Your task to perform on an android device: Add "usb-a to usb-b" to the cart on target.com, then select checkout. Image 0: 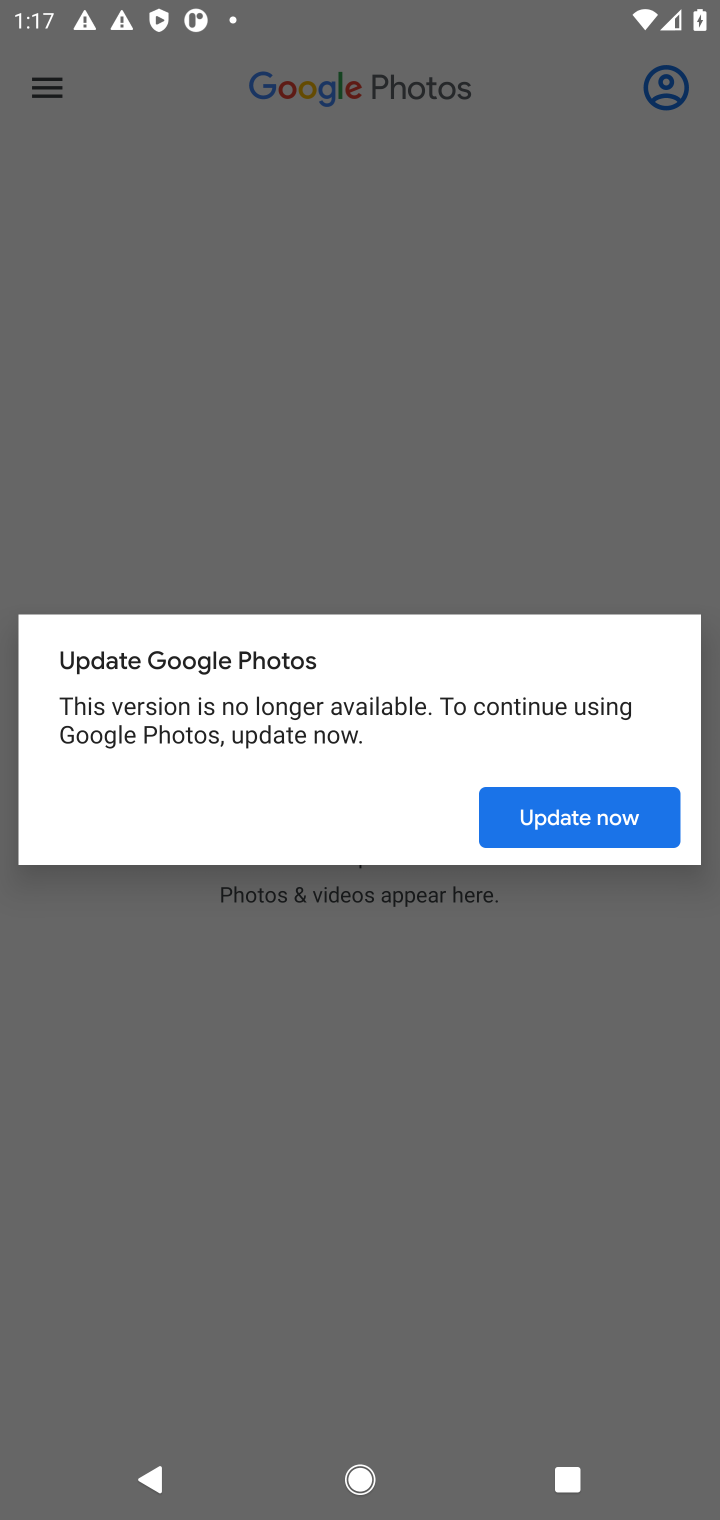
Step 0: press home button
Your task to perform on an android device: Add "usb-a to usb-b" to the cart on target.com, then select checkout. Image 1: 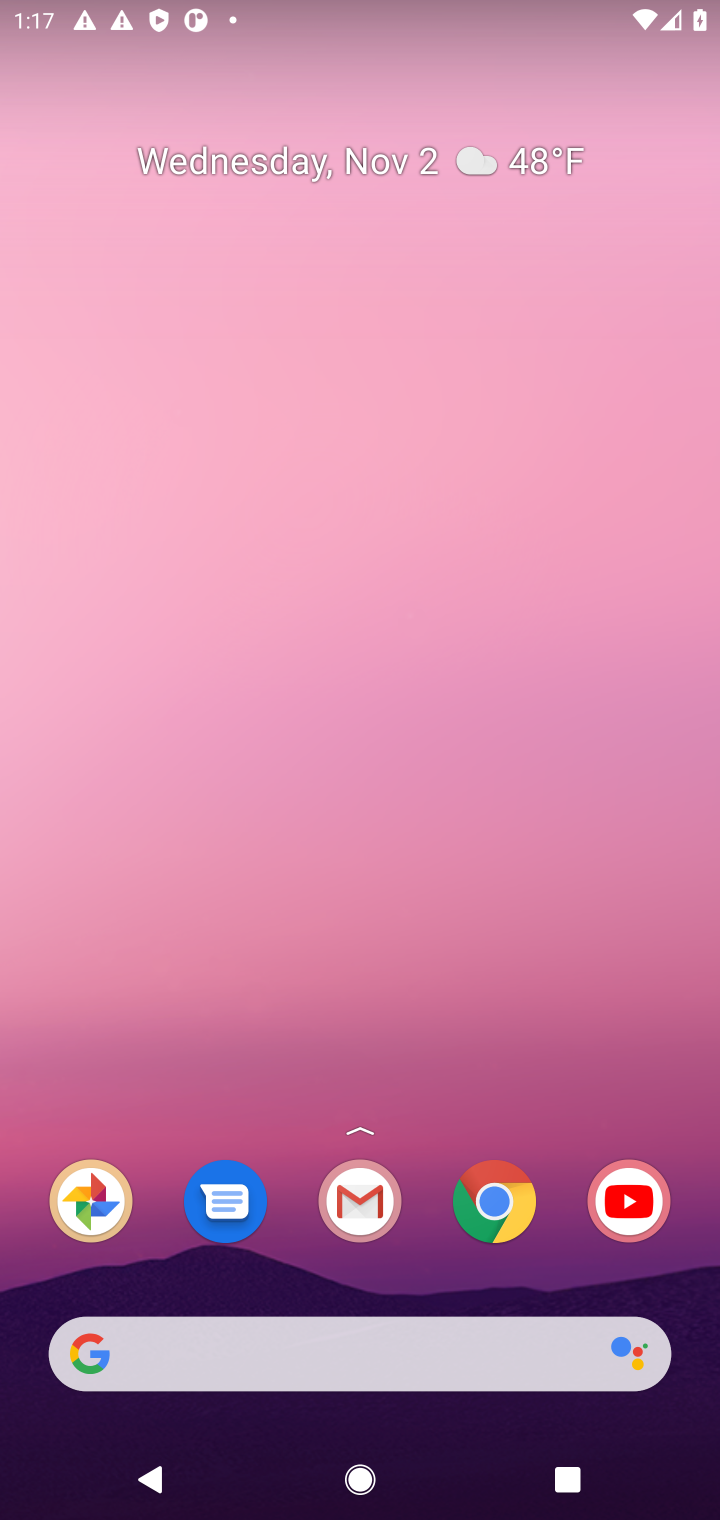
Step 1: click (477, 1210)
Your task to perform on an android device: Add "usb-a to usb-b" to the cart on target.com, then select checkout. Image 2: 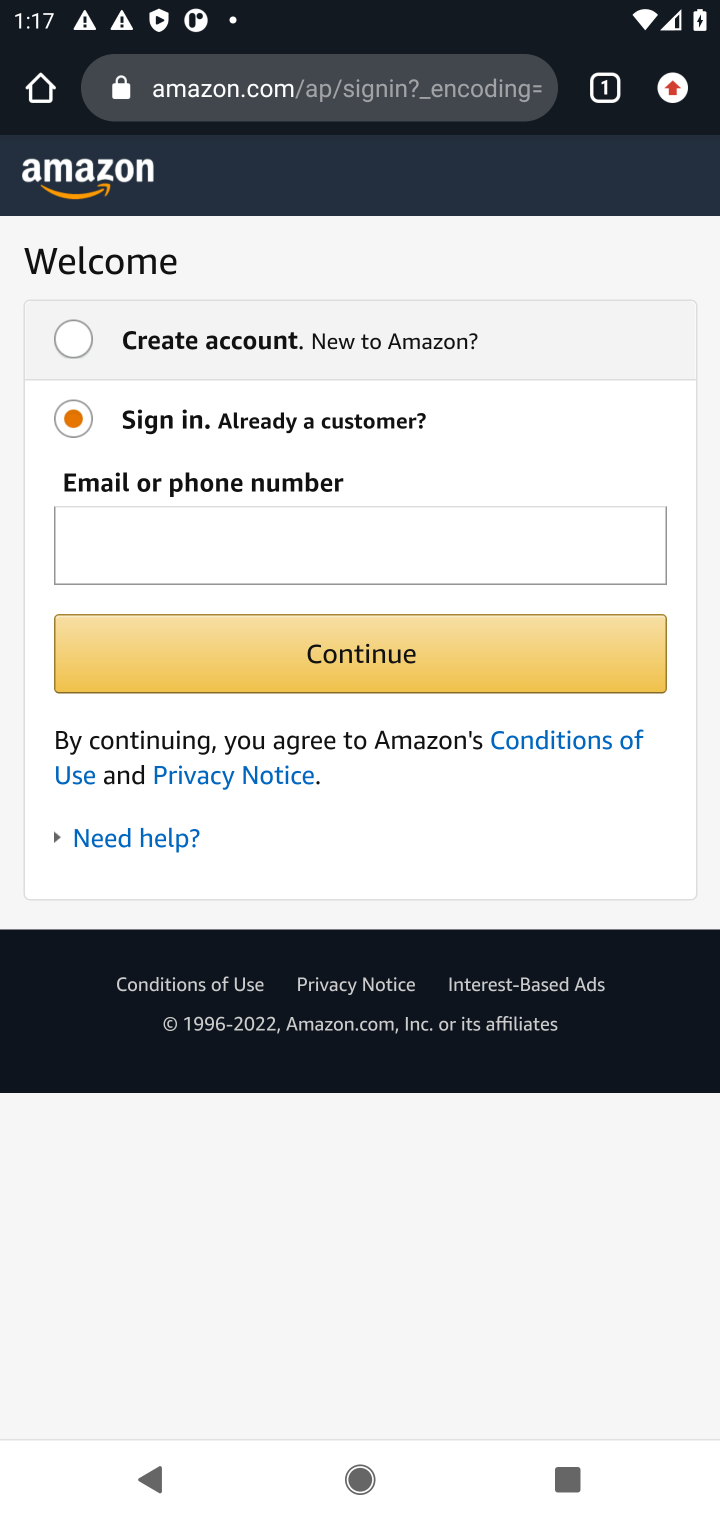
Step 2: click (345, 86)
Your task to perform on an android device: Add "usb-a to usb-b" to the cart on target.com, then select checkout. Image 3: 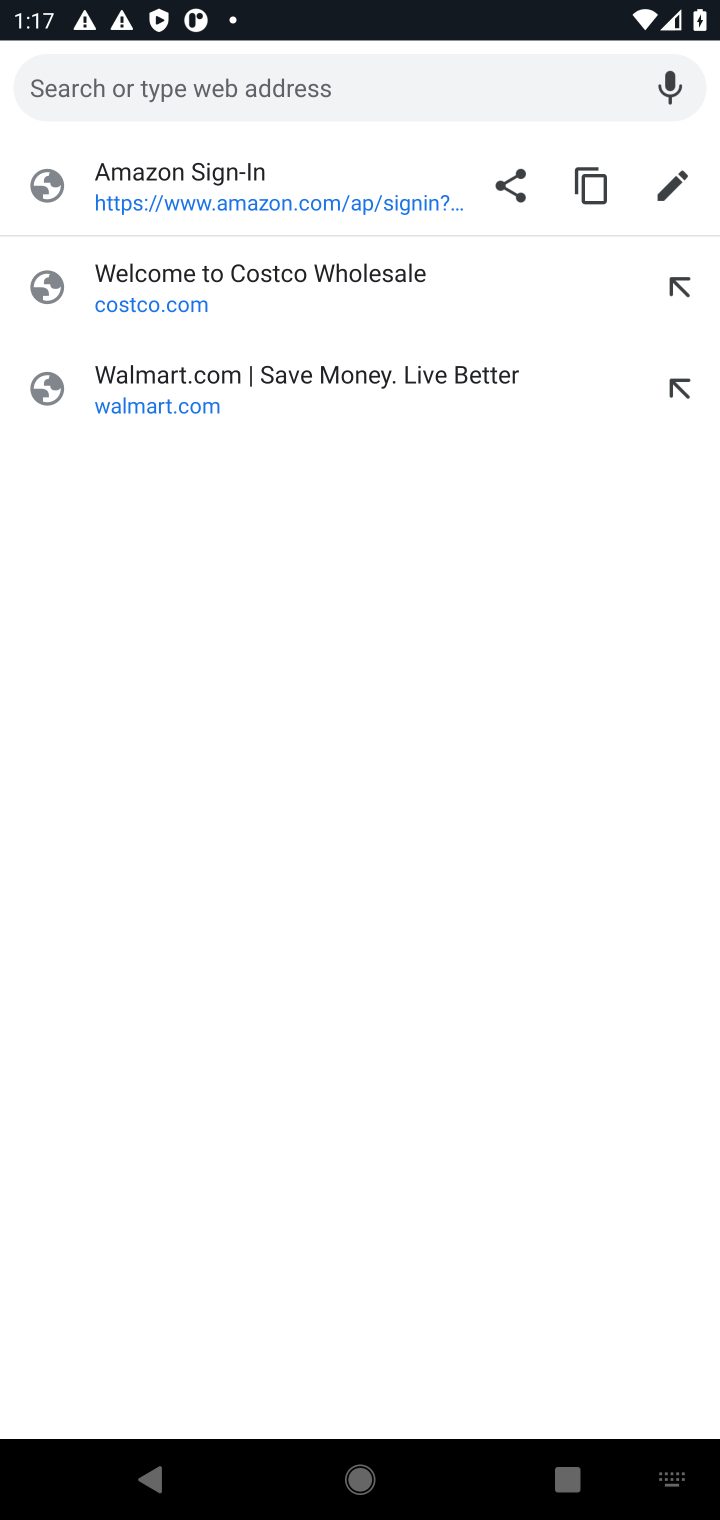
Step 3: type "usb-a to usb-b"
Your task to perform on an android device: Add "usb-a to usb-b" to the cart on target.com, then select checkout. Image 4: 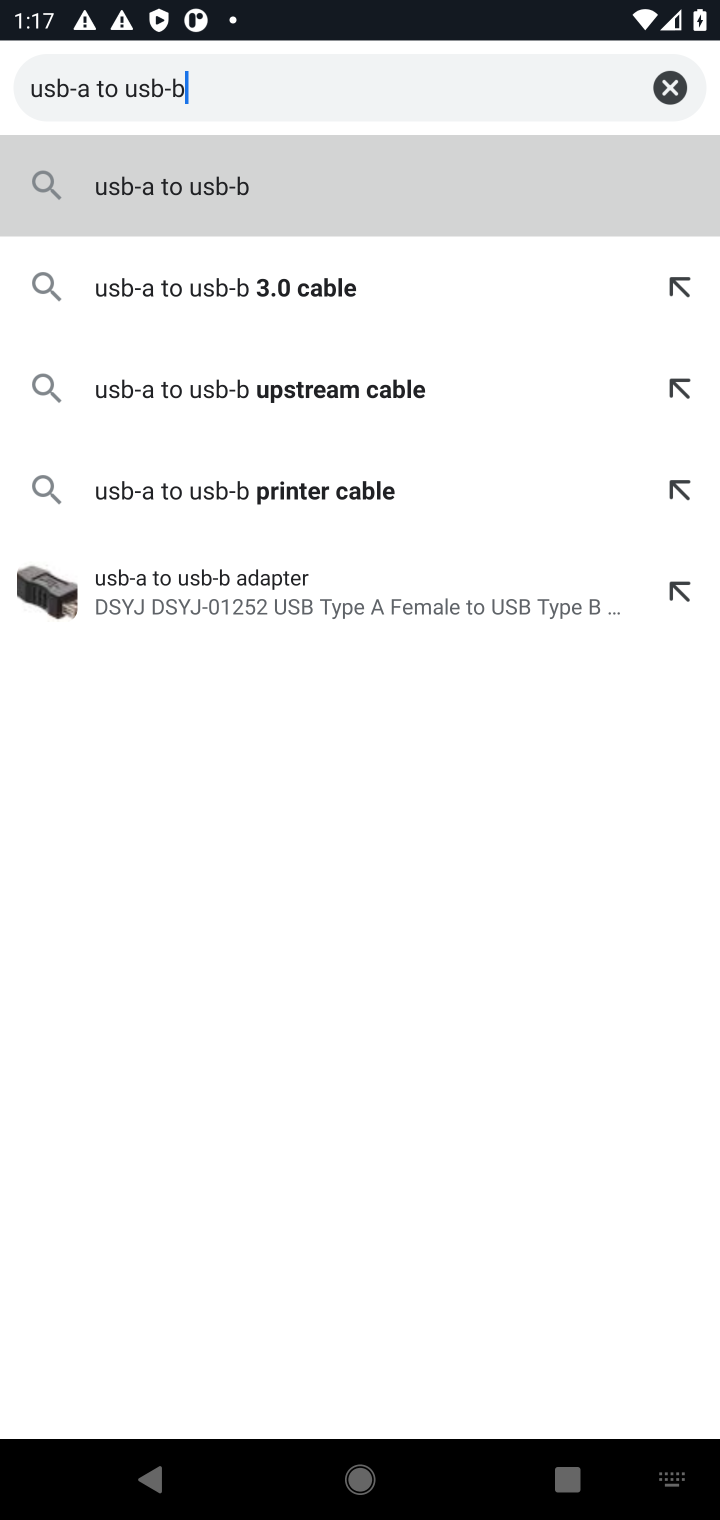
Step 4: press enter
Your task to perform on an android device: Add "usb-a to usb-b" to the cart on target.com, then select checkout. Image 5: 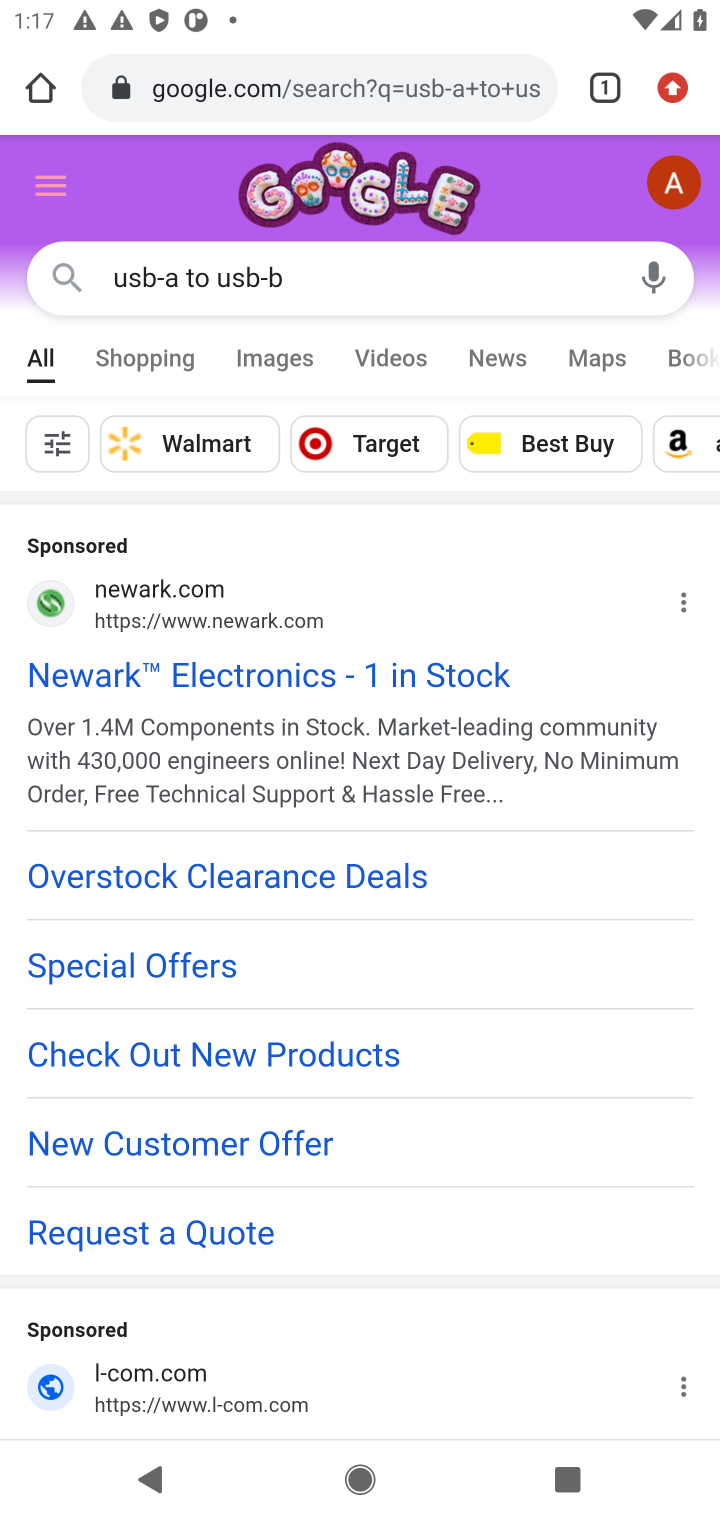
Step 5: drag from (510, 1162) to (451, 574)
Your task to perform on an android device: Add "usb-a to usb-b" to the cart on target.com, then select checkout. Image 6: 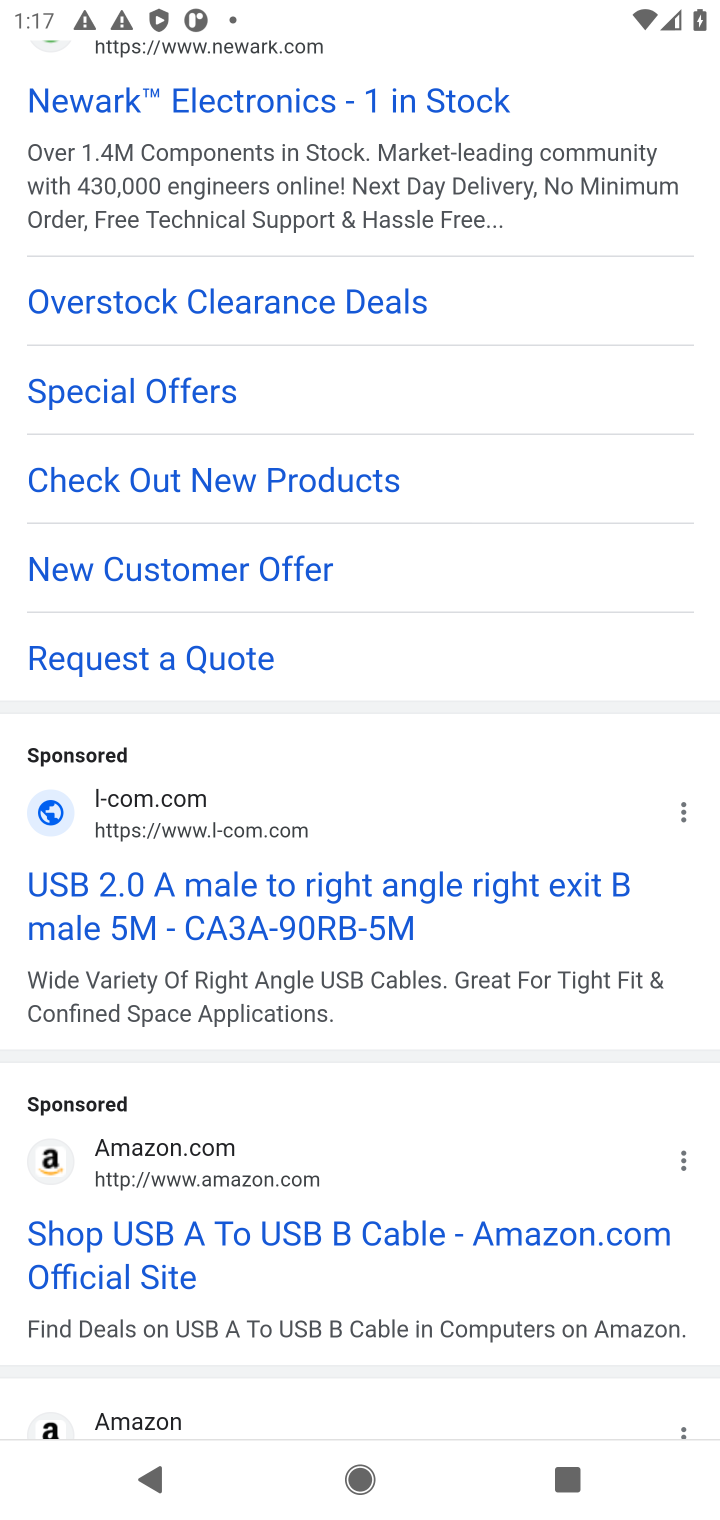
Step 6: drag from (492, 1110) to (435, 517)
Your task to perform on an android device: Add "usb-a to usb-b" to the cart on target.com, then select checkout. Image 7: 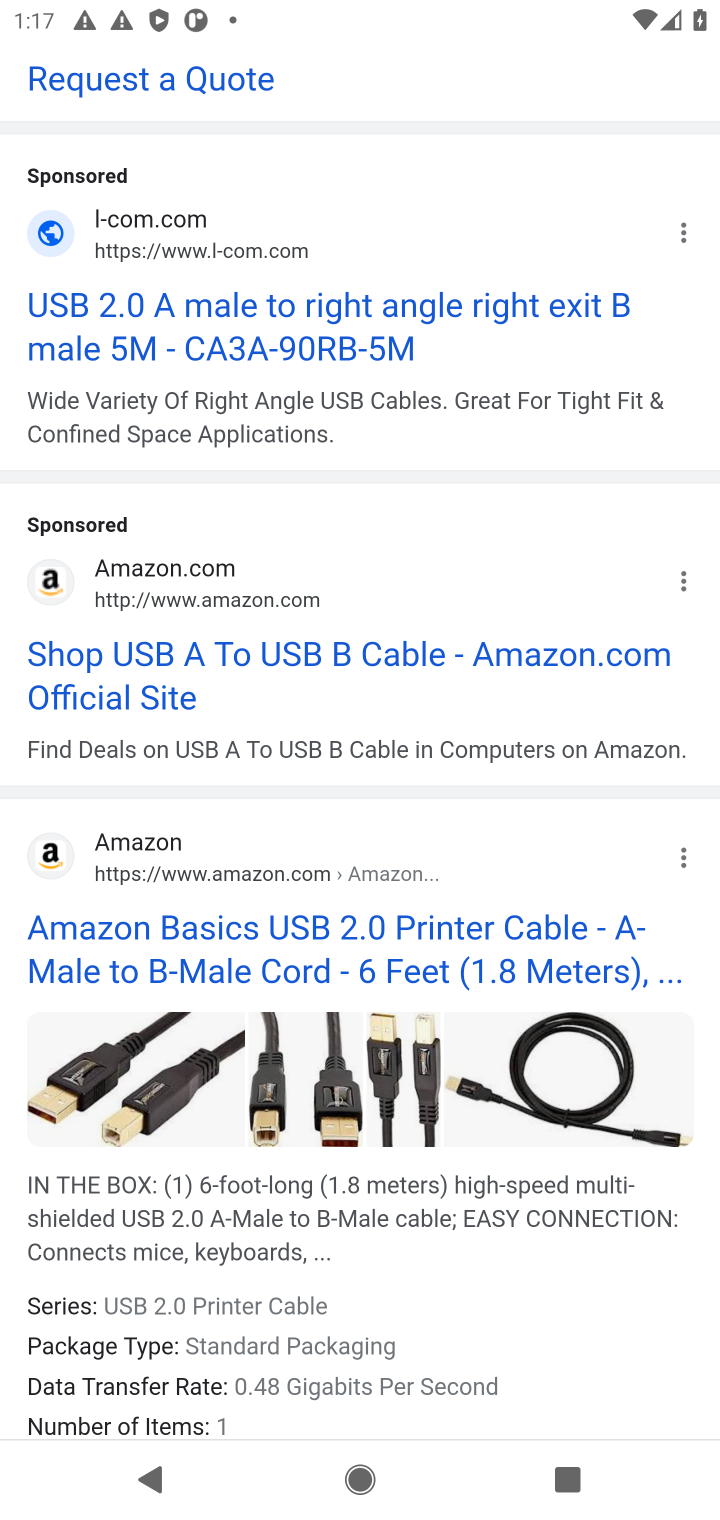
Step 7: drag from (452, 1032) to (440, 535)
Your task to perform on an android device: Add "usb-a to usb-b" to the cart on target.com, then select checkout. Image 8: 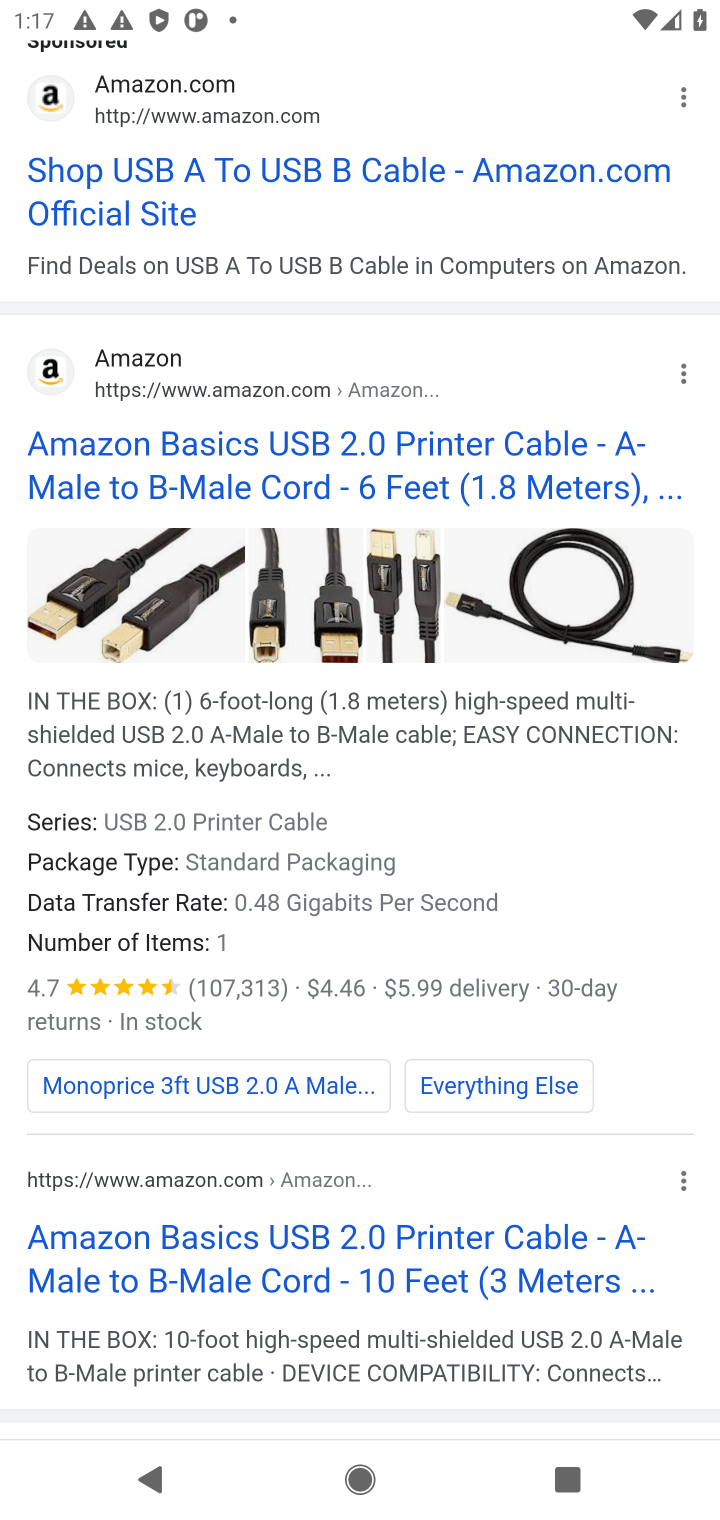
Step 8: drag from (509, 1161) to (511, 895)
Your task to perform on an android device: Add "usb-a to usb-b" to the cart on target.com, then select checkout. Image 9: 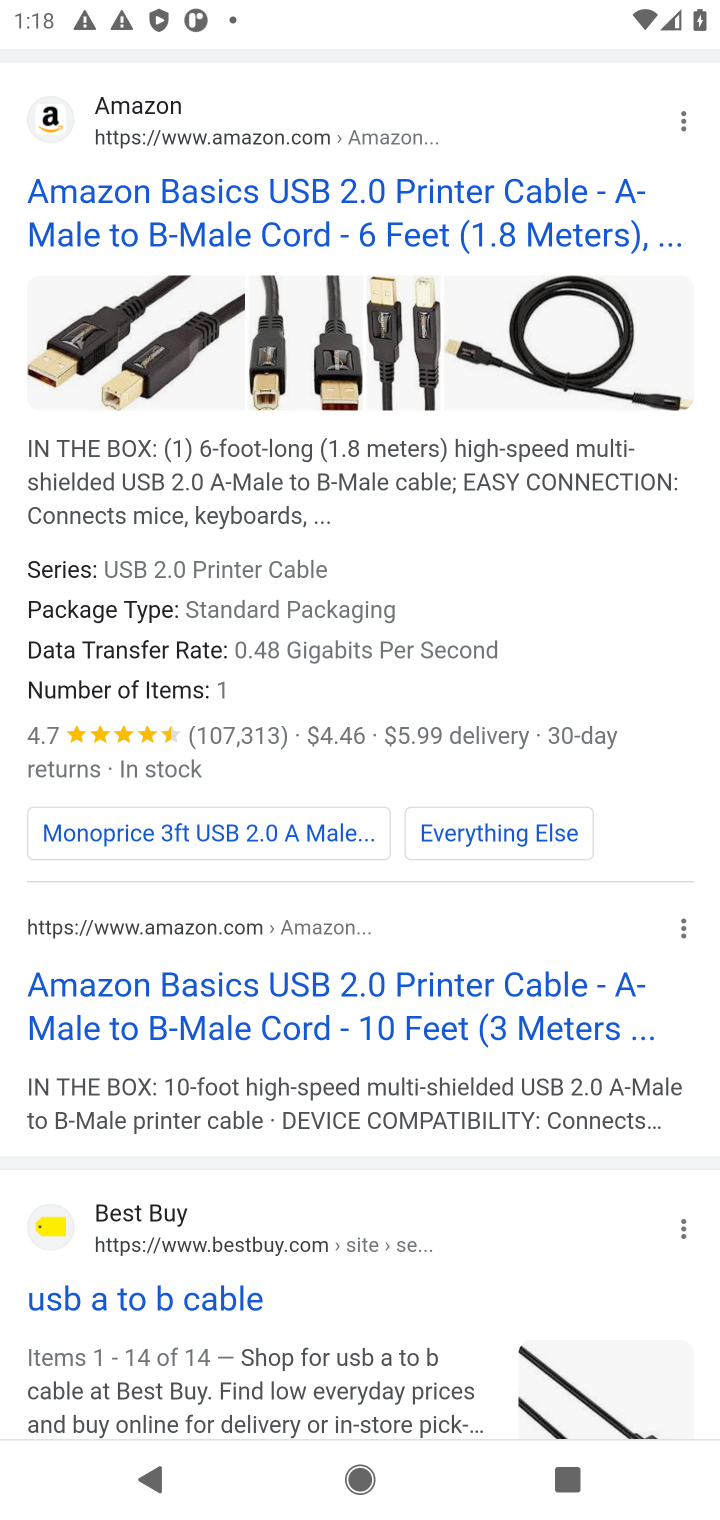
Step 9: drag from (494, 1129) to (473, 654)
Your task to perform on an android device: Add "usb-a to usb-b" to the cart on target.com, then select checkout. Image 10: 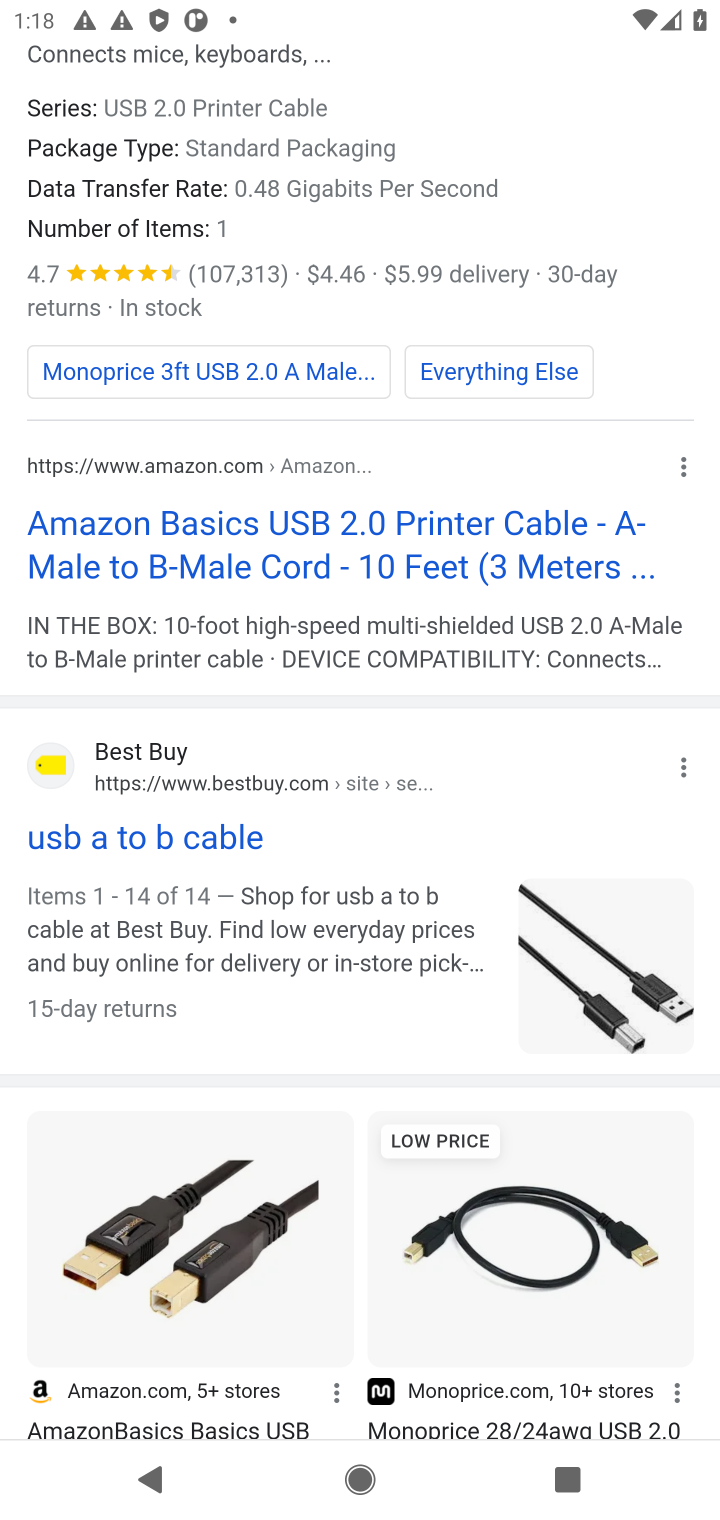
Step 10: drag from (506, 961) to (583, 615)
Your task to perform on an android device: Add "usb-a to usb-b" to the cart on target.com, then select checkout. Image 11: 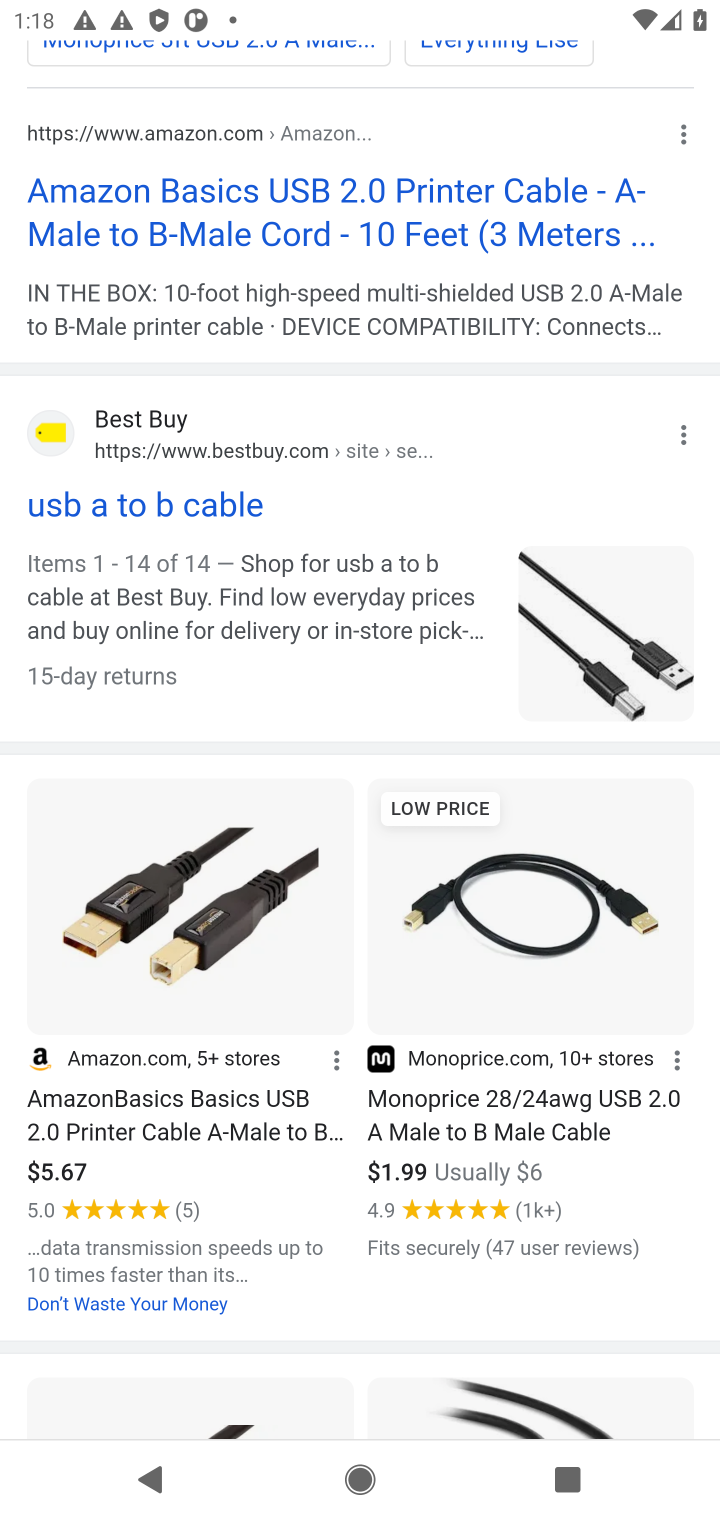
Step 11: drag from (467, 334) to (573, 1151)
Your task to perform on an android device: Add "usb-a to usb-b" to the cart on target.com, then select checkout. Image 12: 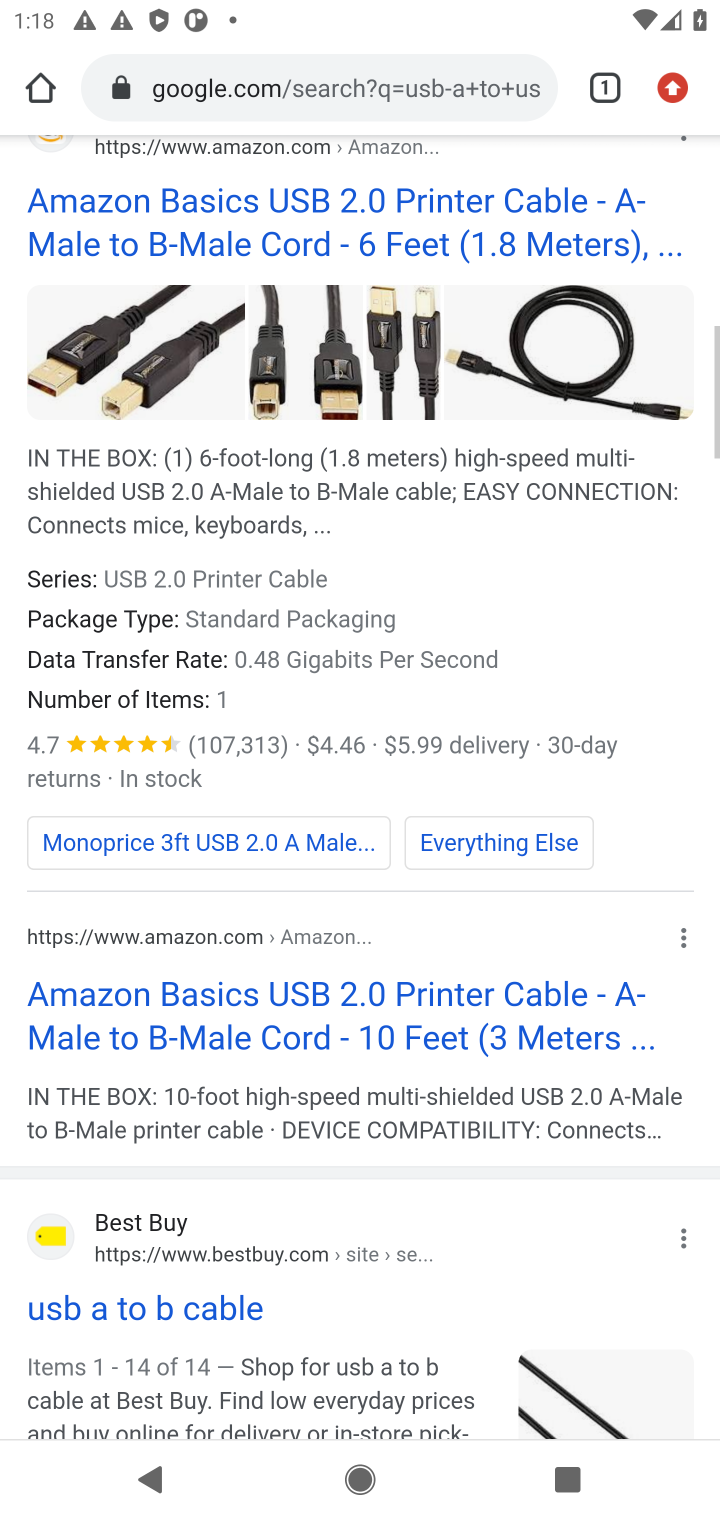
Step 12: click (416, 87)
Your task to perform on an android device: Add "usb-a to usb-b" to the cart on target.com, then select checkout. Image 13: 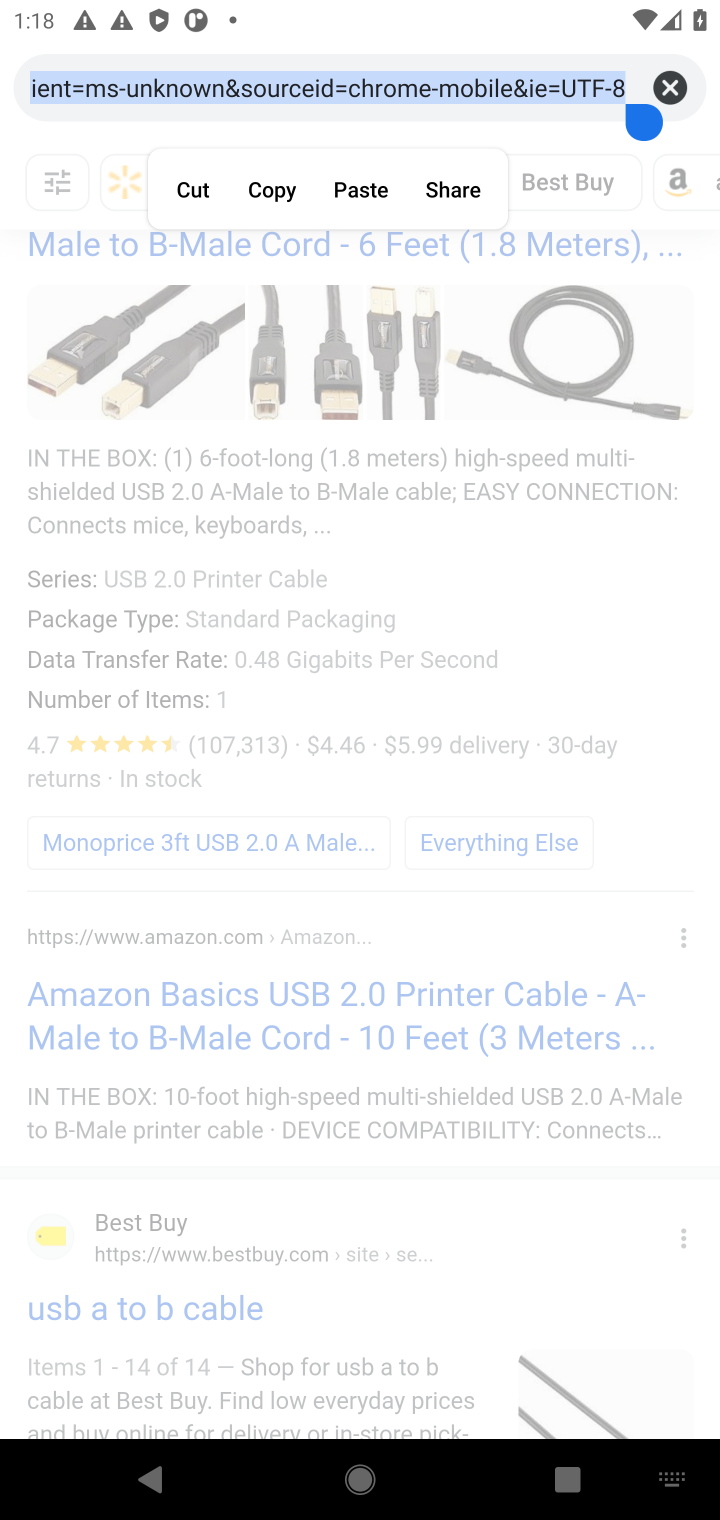
Step 13: click (676, 89)
Your task to perform on an android device: Add "usb-a to usb-b" to the cart on target.com, then select checkout. Image 14: 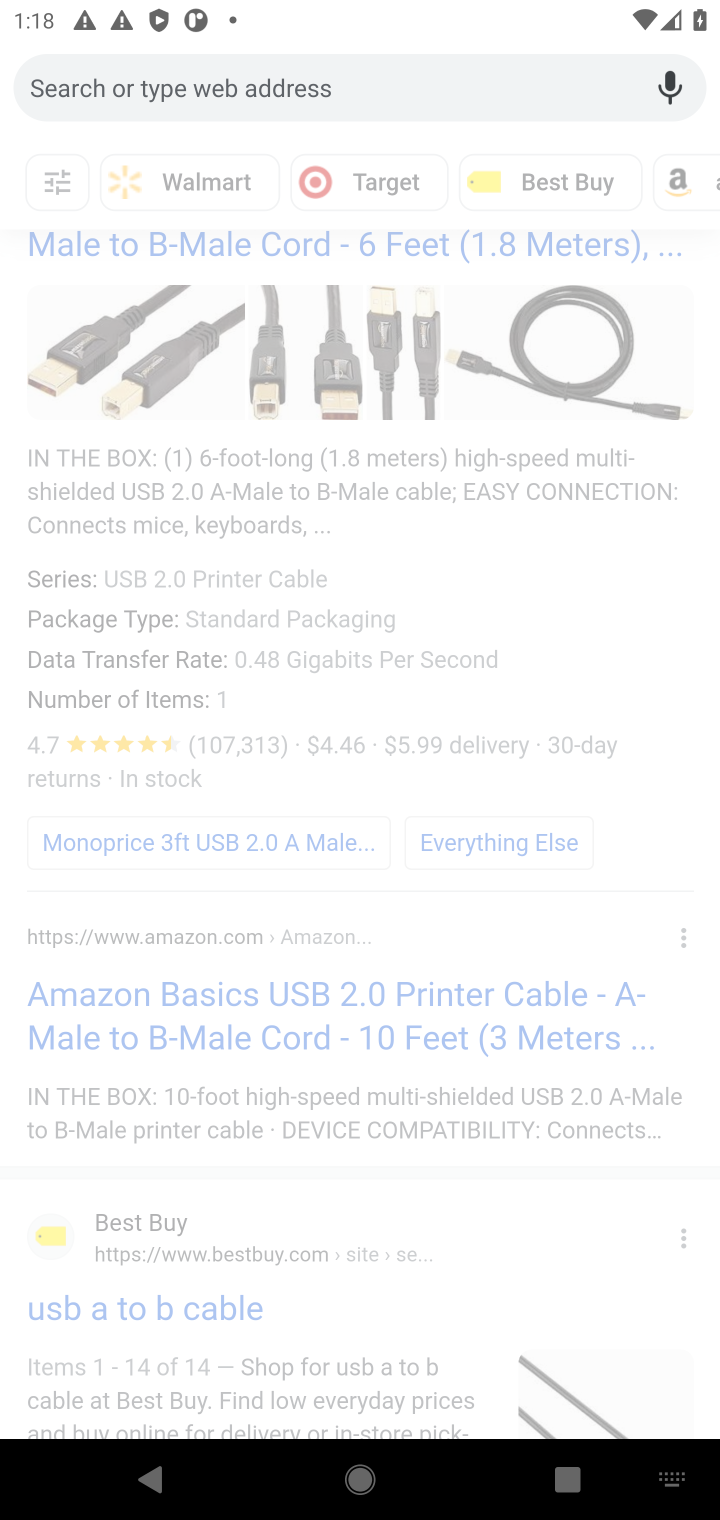
Step 14: type "target.com"
Your task to perform on an android device: Add "usb-a to usb-b" to the cart on target.com, then select checkout. Image 15: 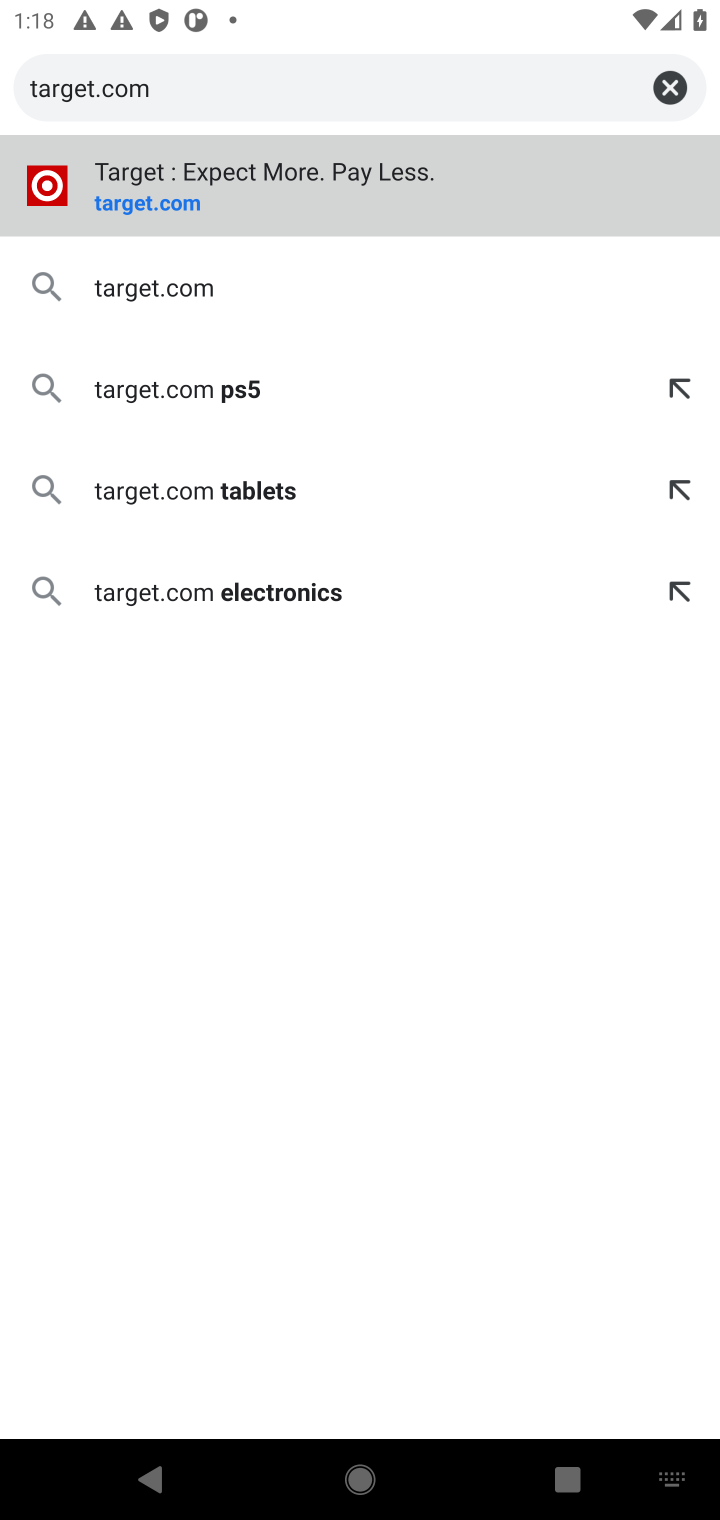
Step 15: press enter
Your task to perform on an android device: Add "usb-a to usb-b" to the cart on target.com, then select checkout. Image 16: 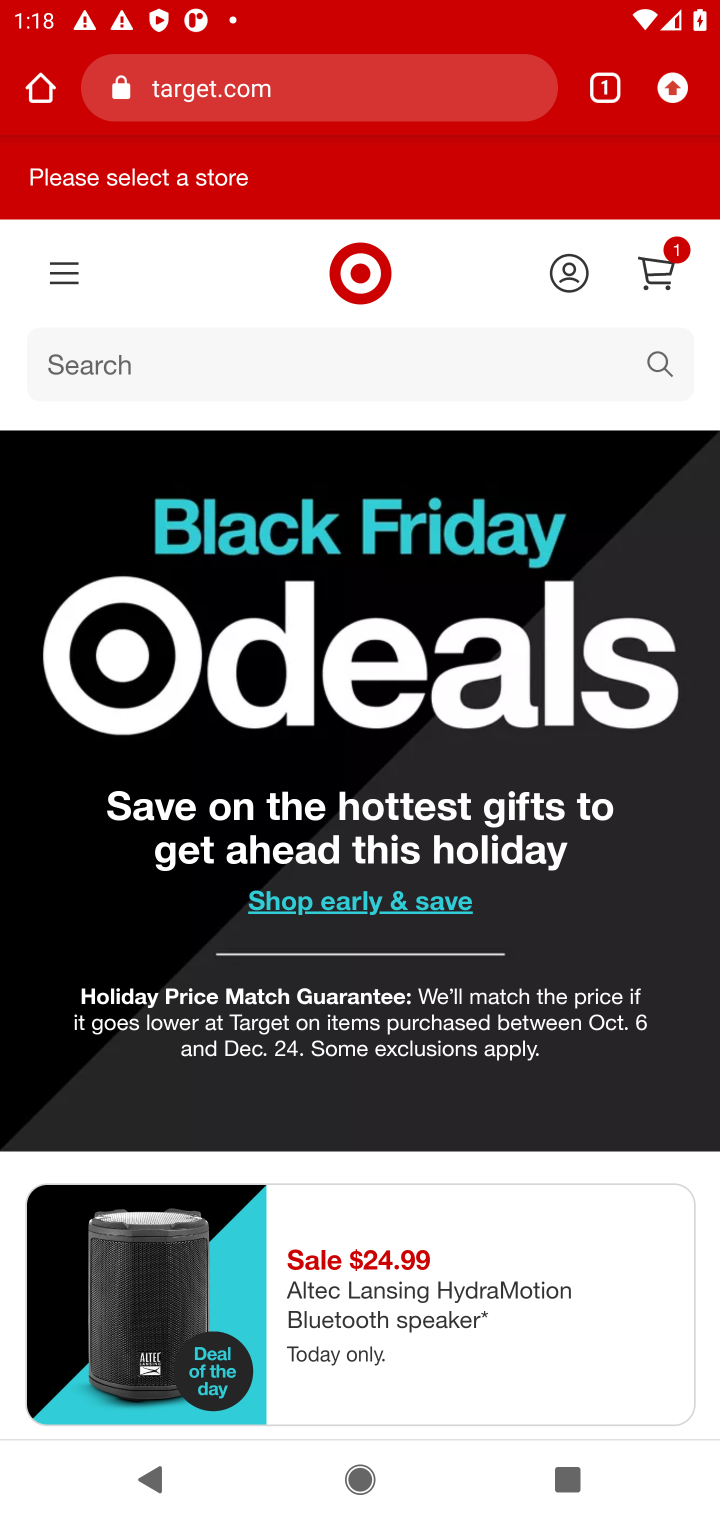
Step 16: click (665, 361)
Your task to perform on an android device: Add "usb-a to usb-b" to the cart on target.com, then select checkout. Image 17: 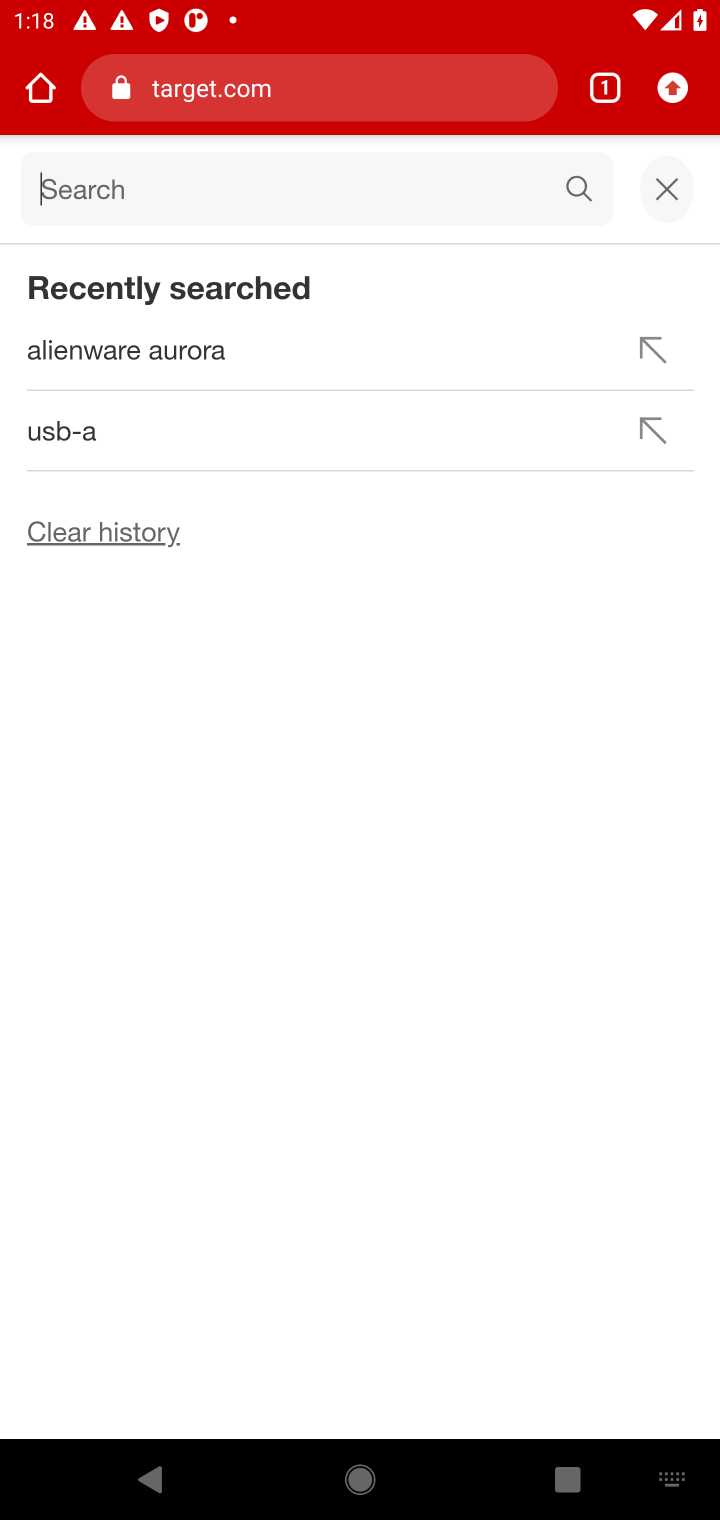
Step 17: type "usb-a to usb-b"
Your task to perform on an android device: Add "usb-a to usb-b" to the cart on target.com, then select checkout. Image 18: 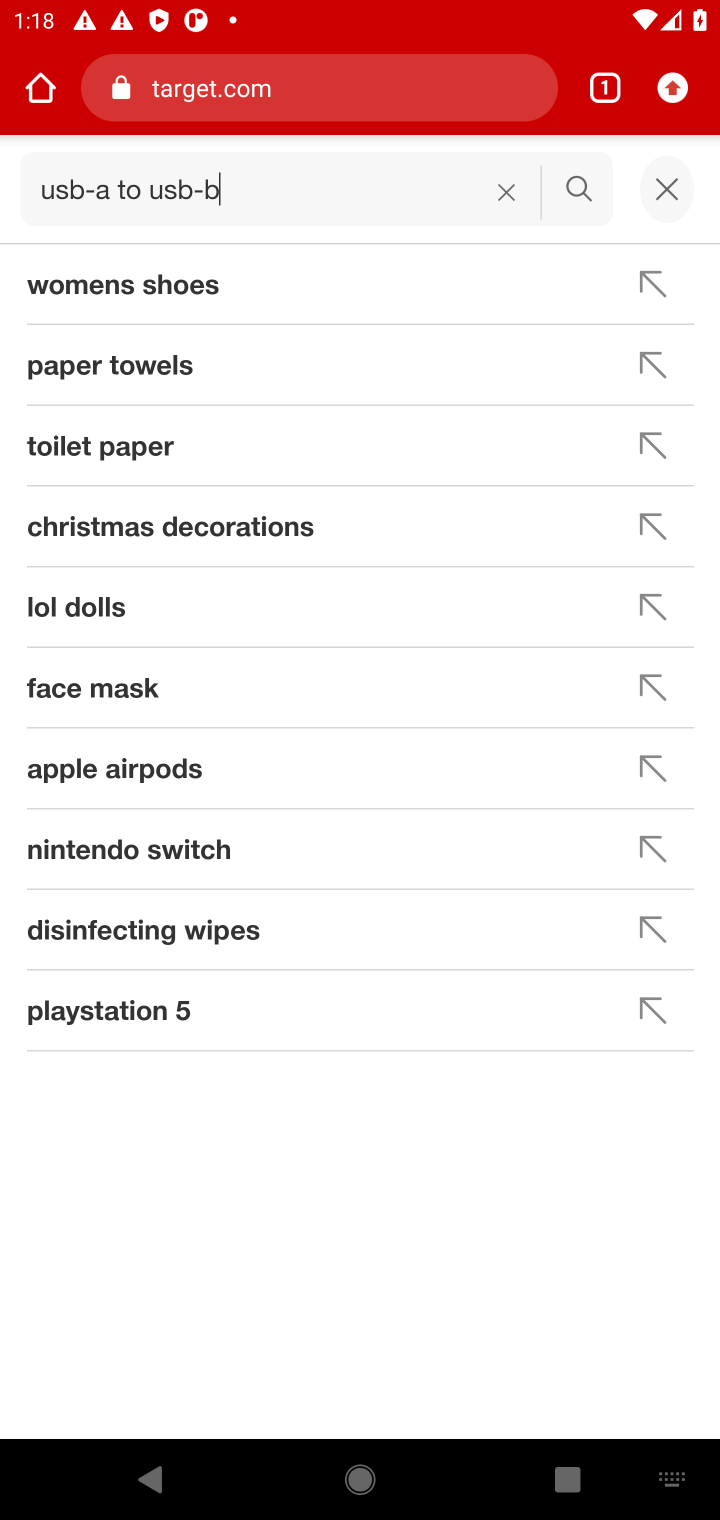
Step 18: press enter
Your task to perform on an android device: Add "usb-a to usb-b" to the cart on target.com, then select checkout. Image 19: 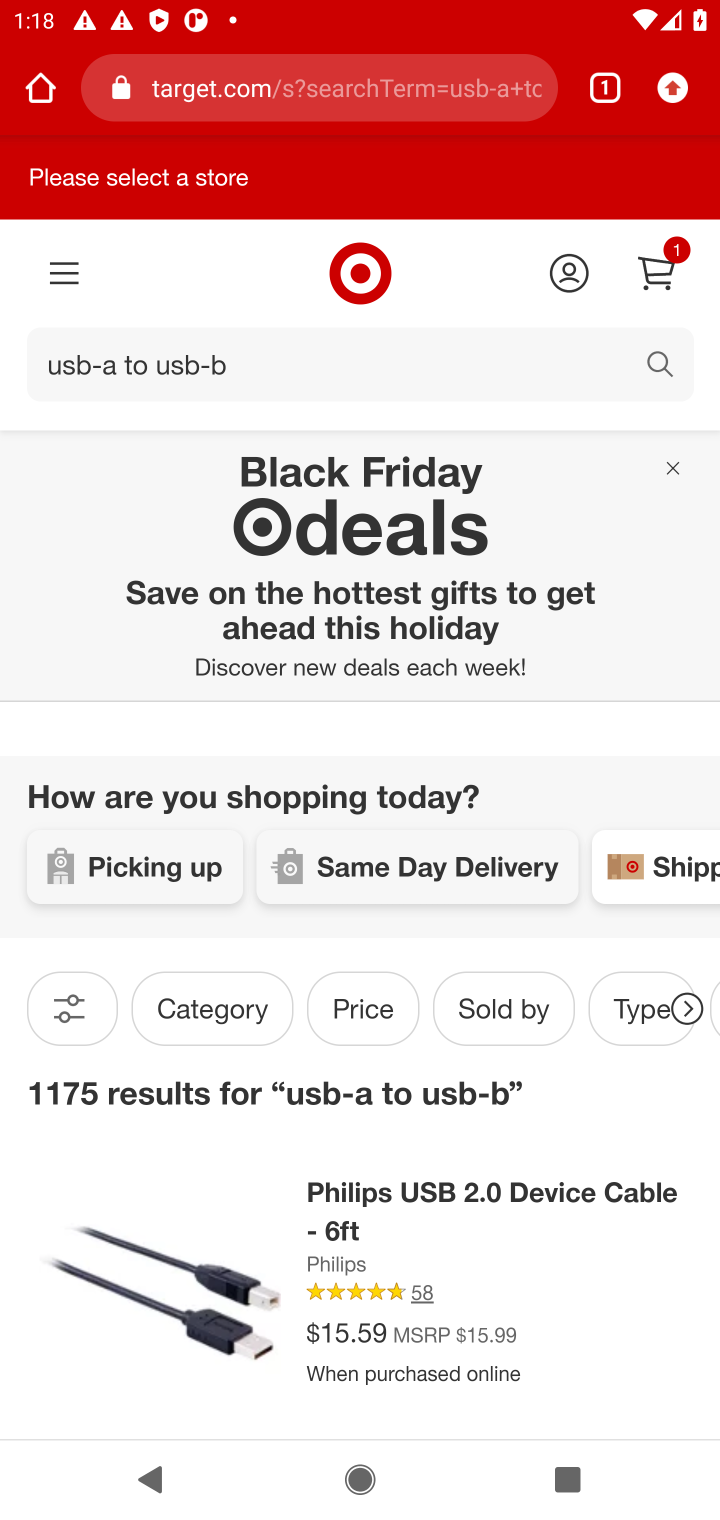
Step 19: drag from (425, 1242) to (422, 955)
Your task to perform on an android device: Add "usb-a to usb-b" to the cart on target.com, then select checkout. Image 20: 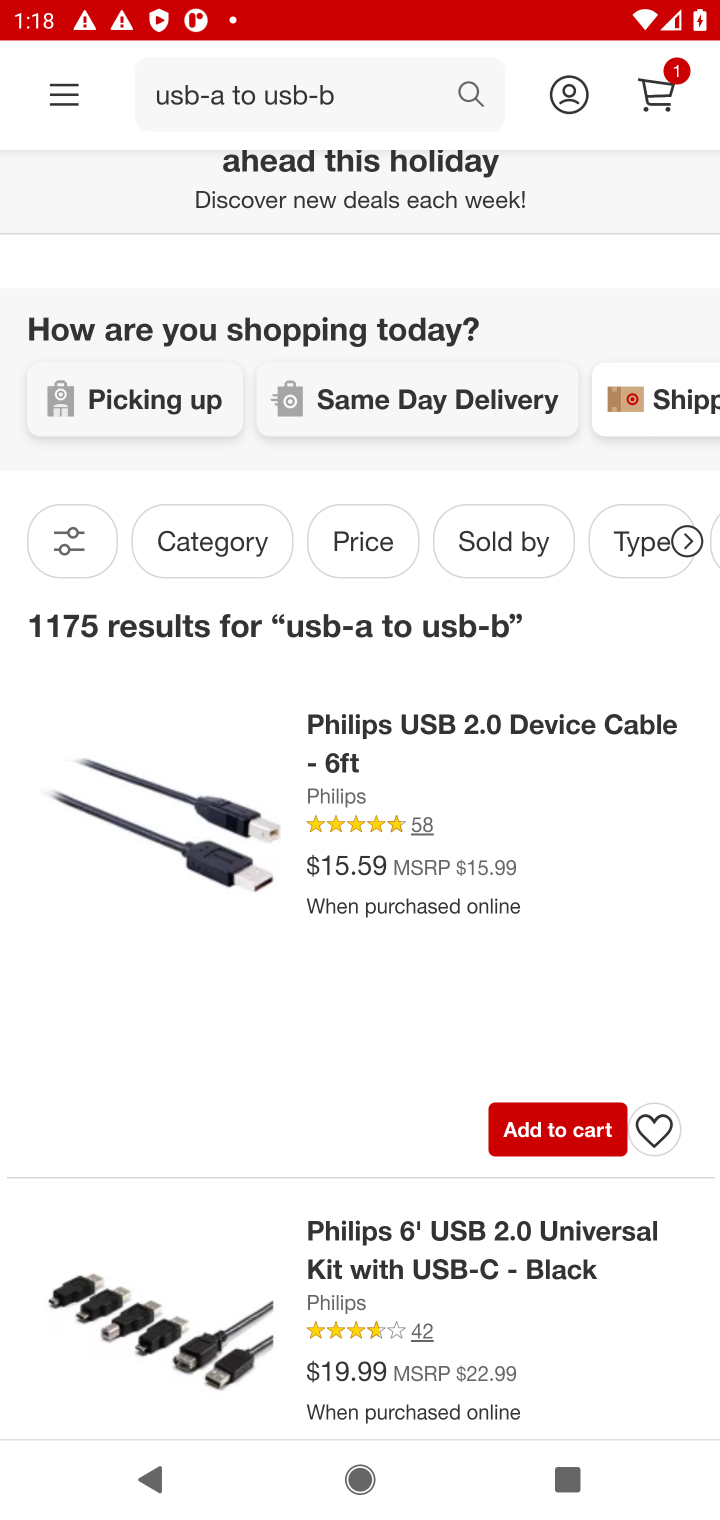
Step 20: drag from (501, 1321) to (494, 795)
Your task to perform on an android device: Add "usb-a to usb-b" to the cart on target.com, then select checkout. Image 21: 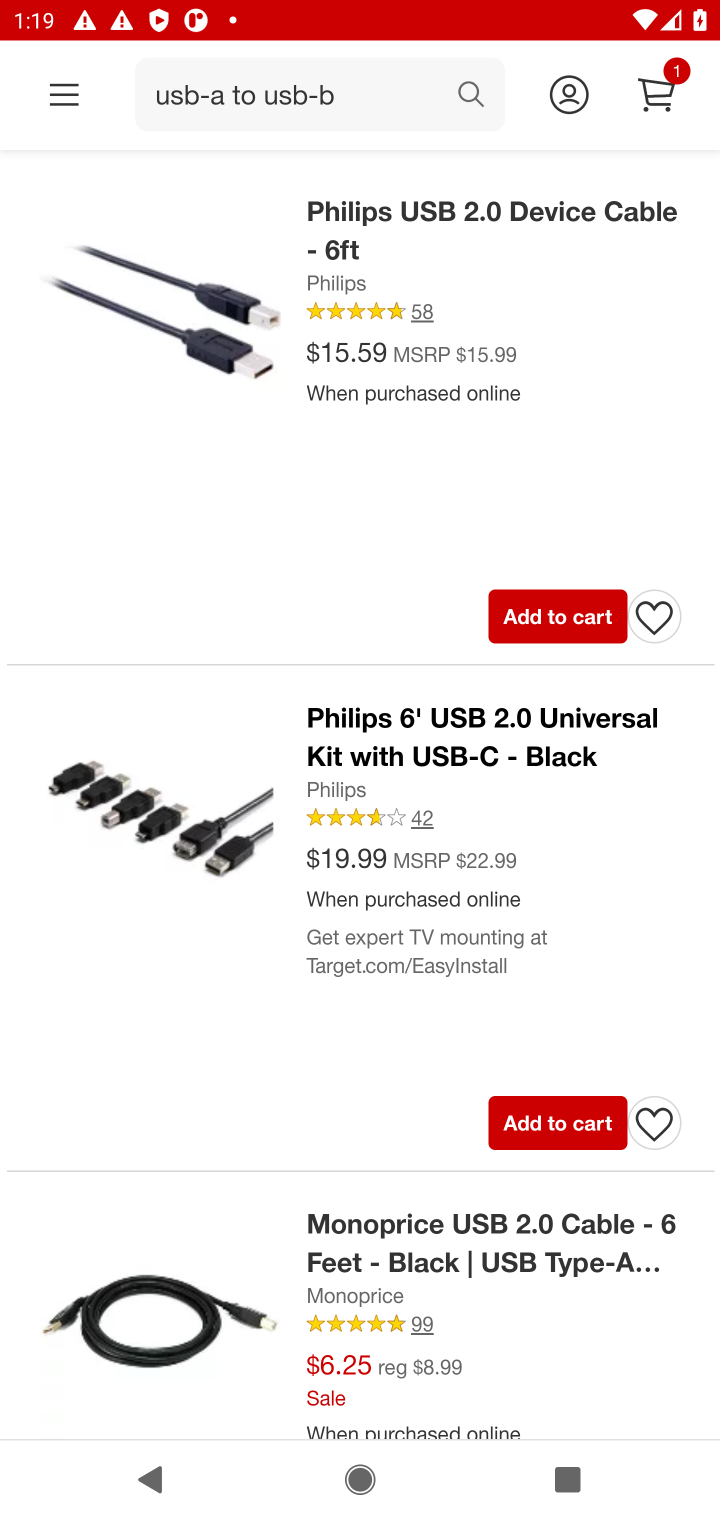
Step 21: click (122, 350)
Your task to perform on an android device: Add "usb-a to usb-b" to the cart on target.com, then select checkout. Image 22: 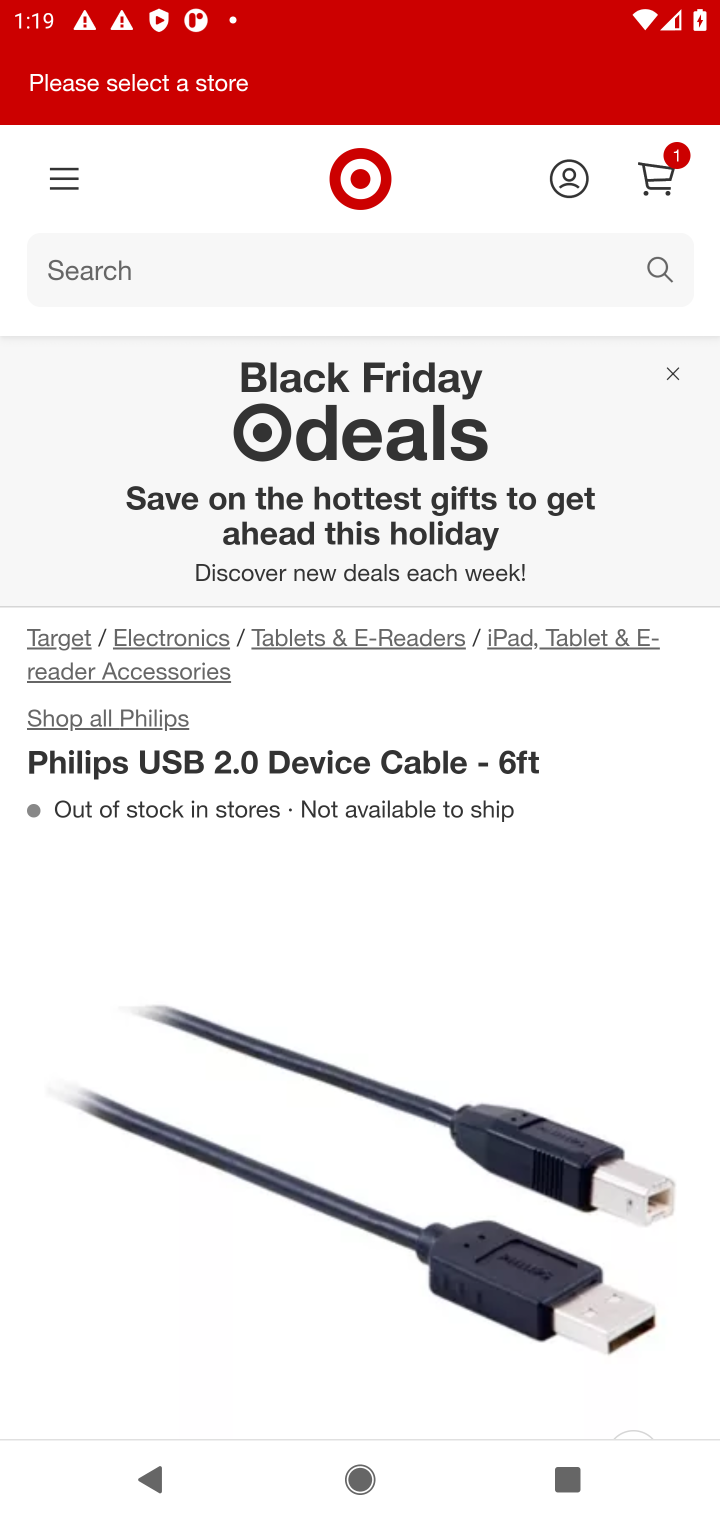
Step 22: drag from (458, 1076) to (448, 455)
Your task to perform on an android device: Add "usb-a to usb-b" to the cart on target.com, then select checkout. Image 23: 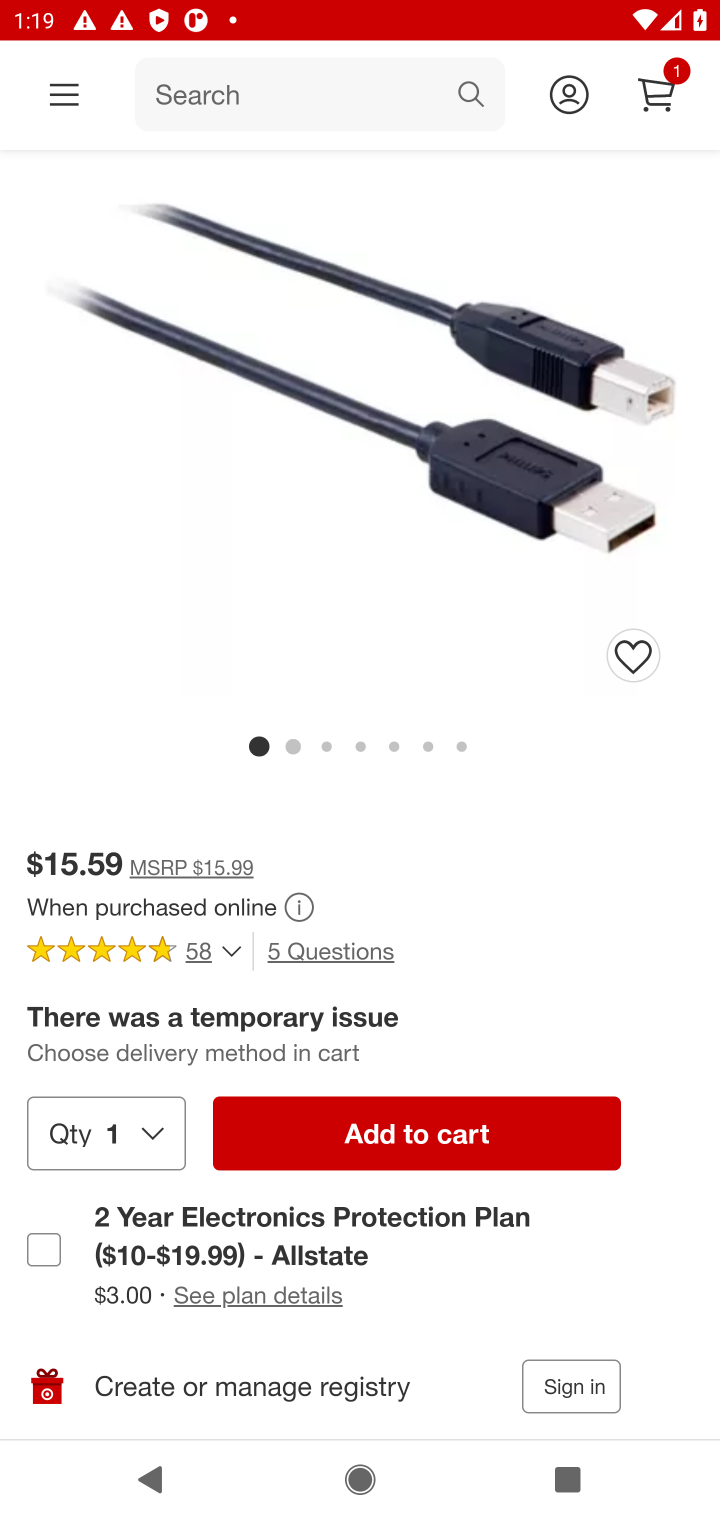
Step 23: click (476, 1137)
Your task to perform on an android device: Add "usb-a to usb-b" to the cart on target.com, then select checkout. Image 24: 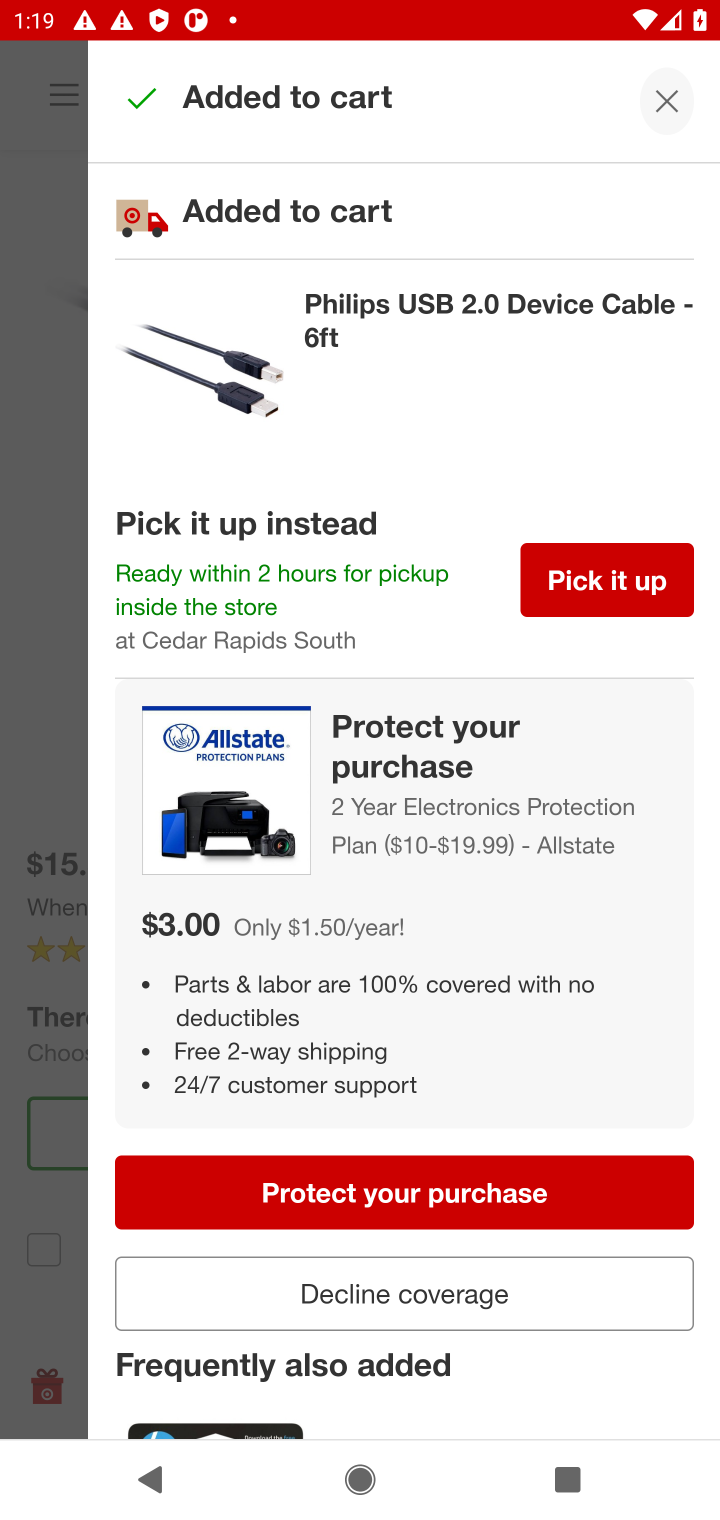
Step 24: click (679, 88)
Your task to perform on an android device: Add "usb-a to usb-b" to the cart on target.com, then select checkout. Image 25: 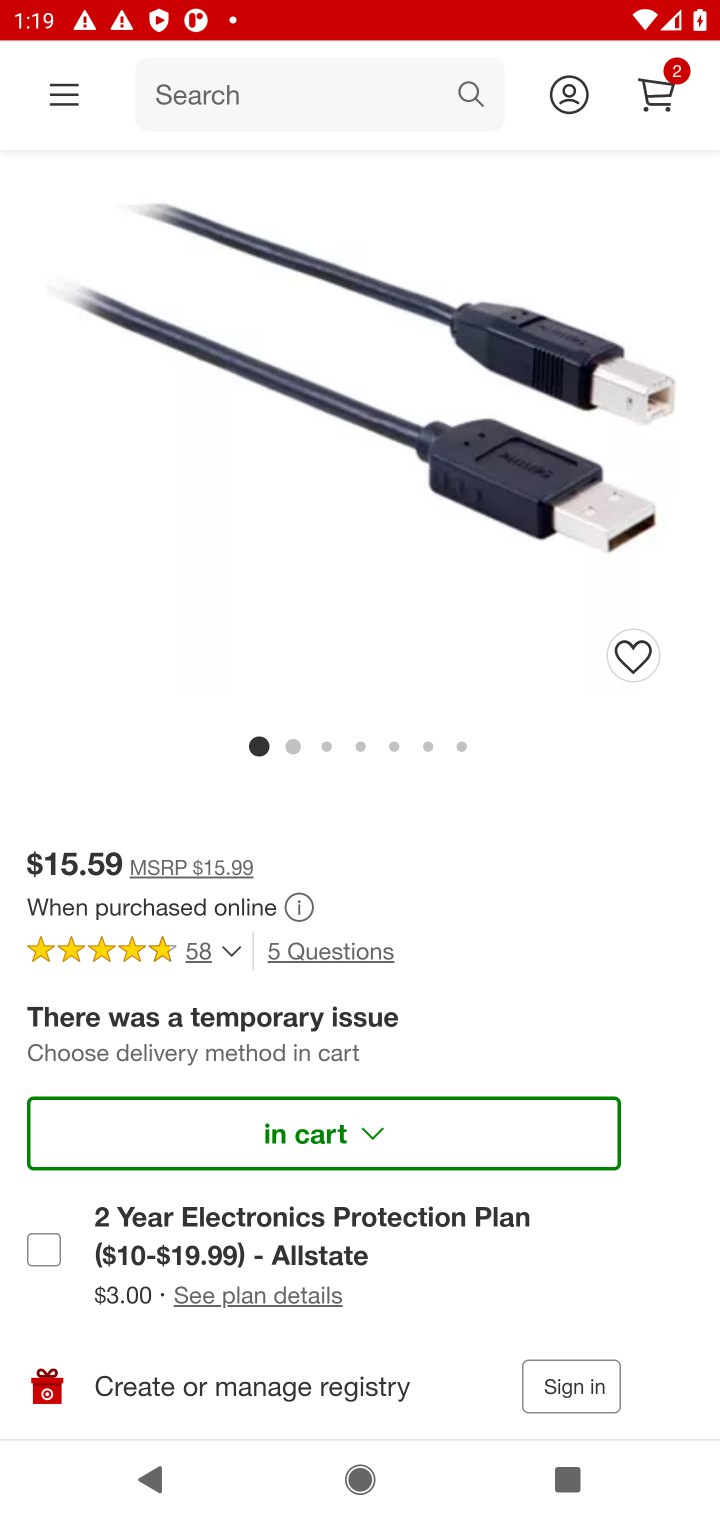
Step 25: click (662, 96)
Your task to perform on an android device: Add "usb-a to usb-b" to the cart on target.com, then select checkout. Image 26: 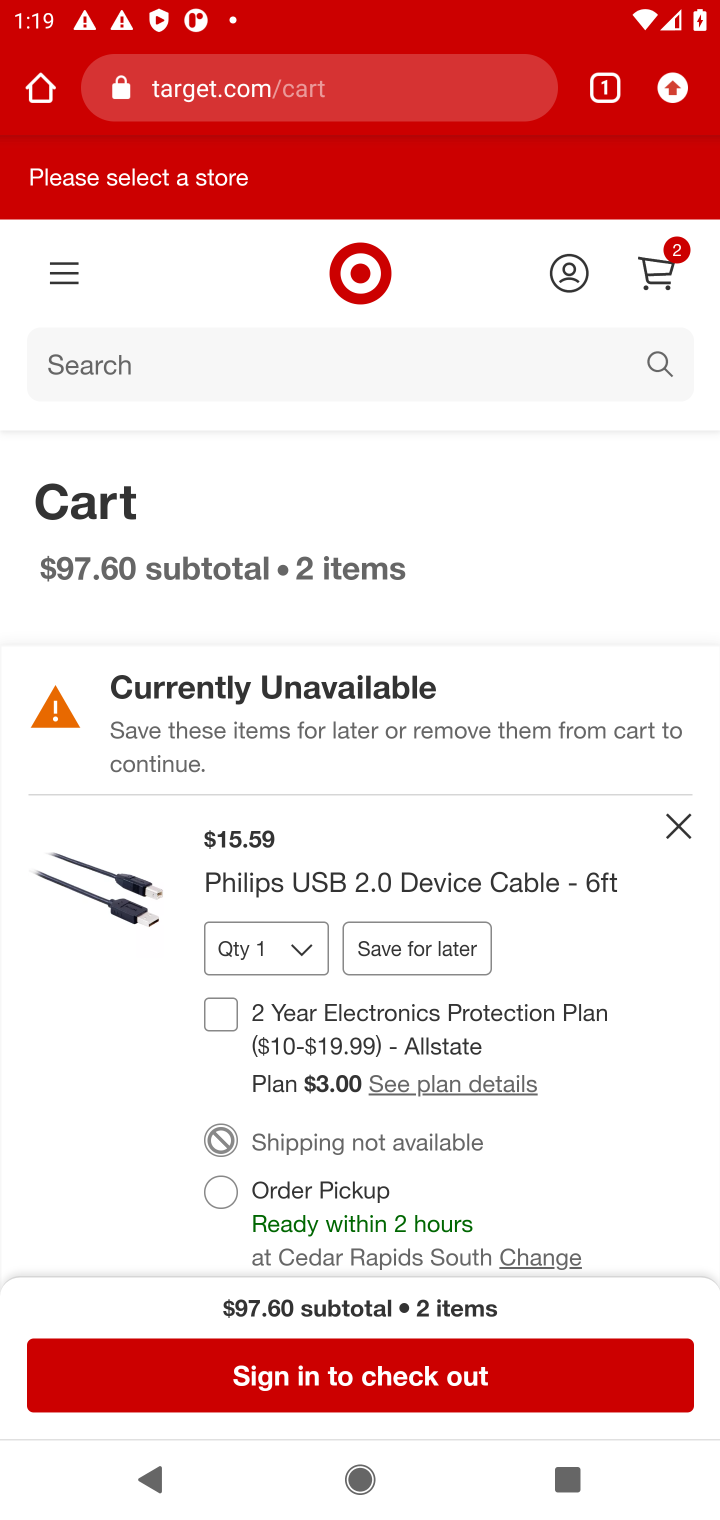
Step 26: click (423, 1378)
Your task to perform on an android device: Add "usb-a to usb-b" to the cart on target.com, then select checkout. Image 27: 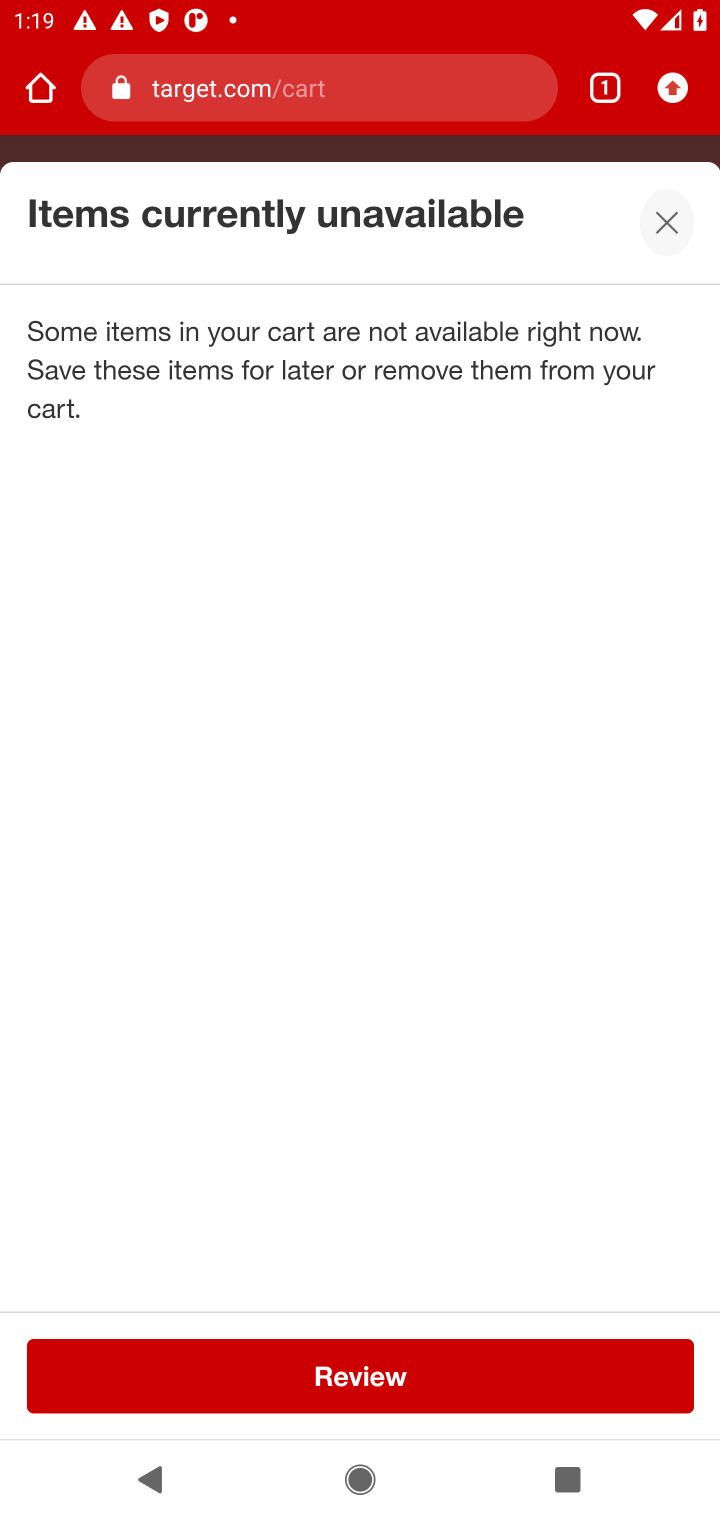
Step 27: task complete